Your task to perform on an android device: Go to eBay Image 0: 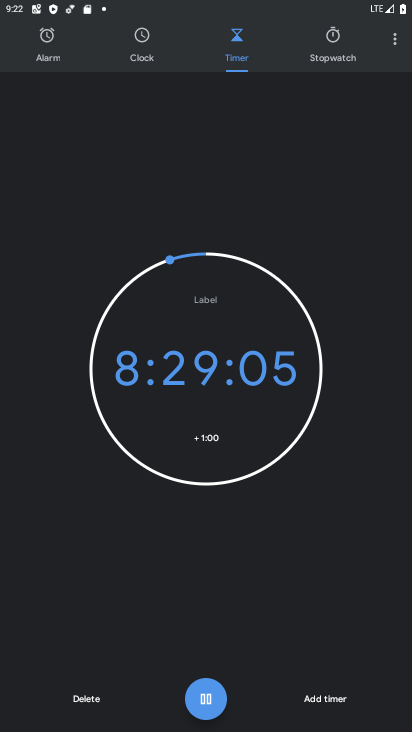
Step 0: press home button
Your task to perform on an android device: Go to eBay Image 1: 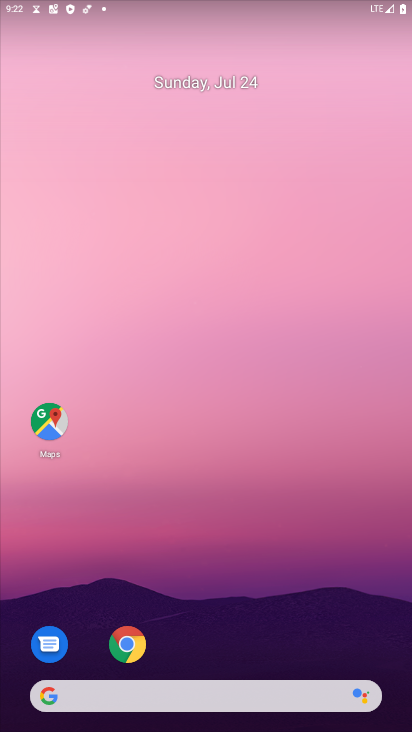
Step 1: click (128, 642)
Your task to perform on an android device: Go to eBay Image 2: 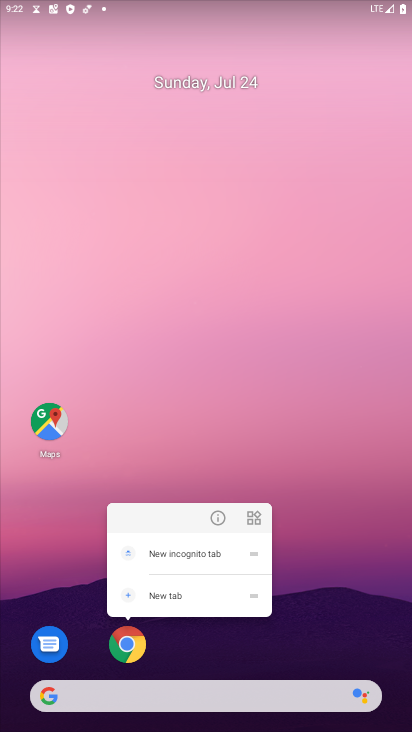
Step 2: click (131, 639)
Your task to perform on an android device: Go to eBay Image 3: 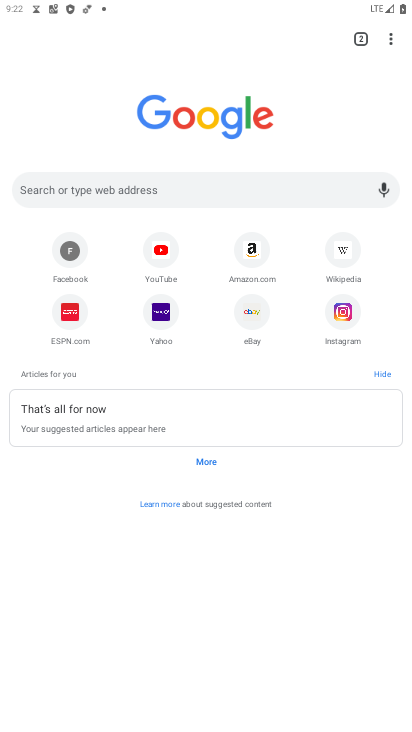
Step 3: click (206, 181)
Your task to perform on an android device: Go to eBay Image 4: 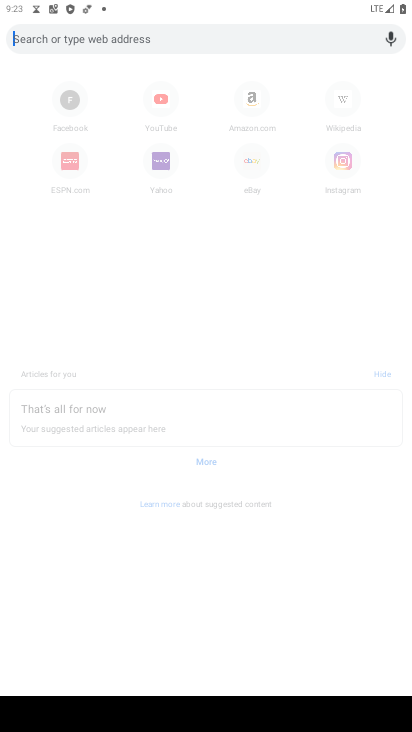
Step 4: type " eBay"
Your task to perform on an android device: Go to eBay Image 5: 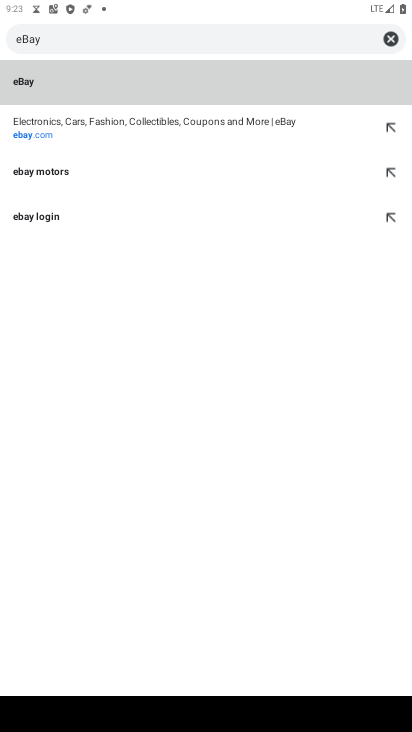
Step 5: click (27, 135)
Your task to perform on an android device: Go to eBay Image 6: 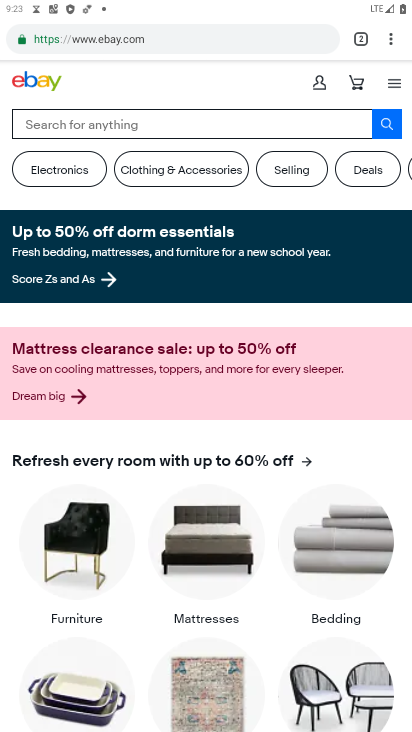
Step 6: task complete